Your task to perform on an android device: What's the weather? Image 0: 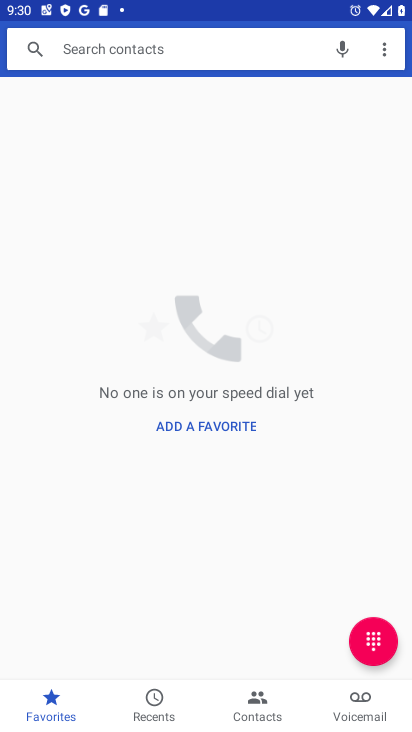
Step 0: press home button
Your task to perform on an android device: What's the weather? Image 1: 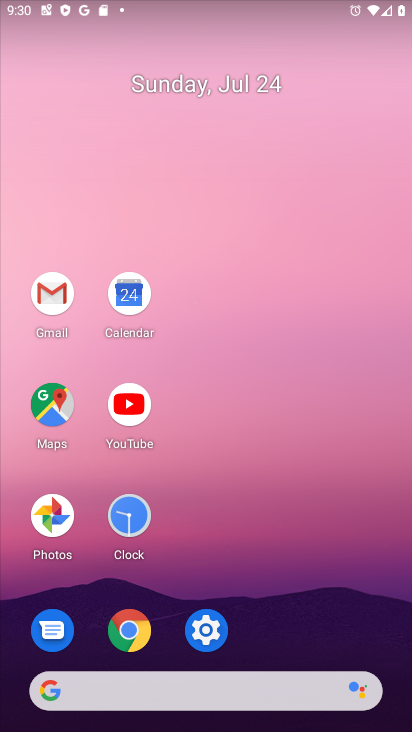
Step 1: click (181, 689)
Your task to perform on an android device: What's the weather? Image 2: 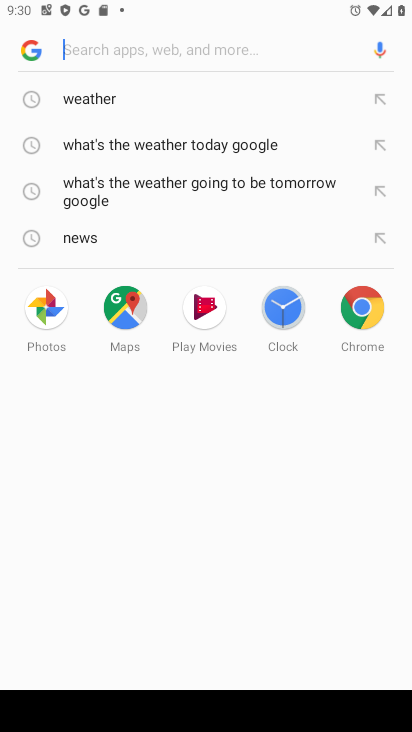
Step 2: click (97, 99)
Your task to perform on an android device: What's the weather? Image 3: 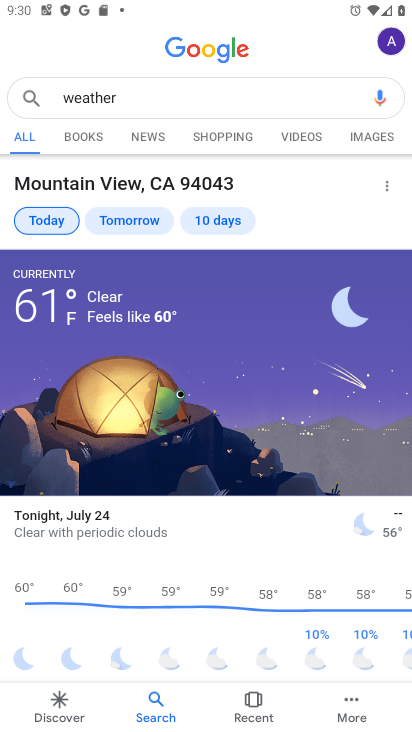
Step 3: task complete